Your task to perform on an android device: Play the last video I watched on Youtube Image 0: 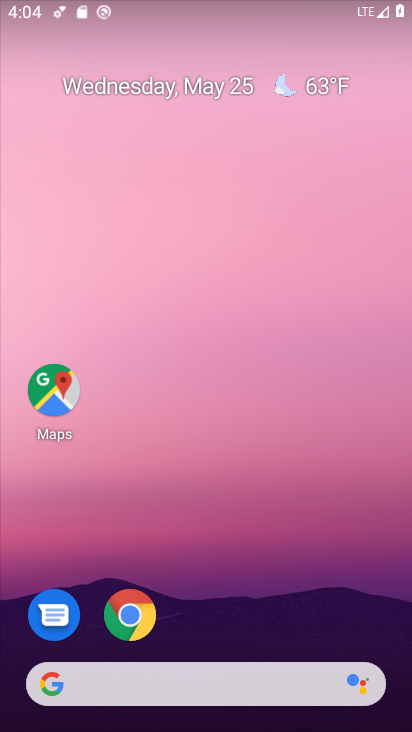
Step 0: drag from (311, 534) to (254, 57)
Your task to perform on an android device: Play the last video I watched on Youtube Image 1: 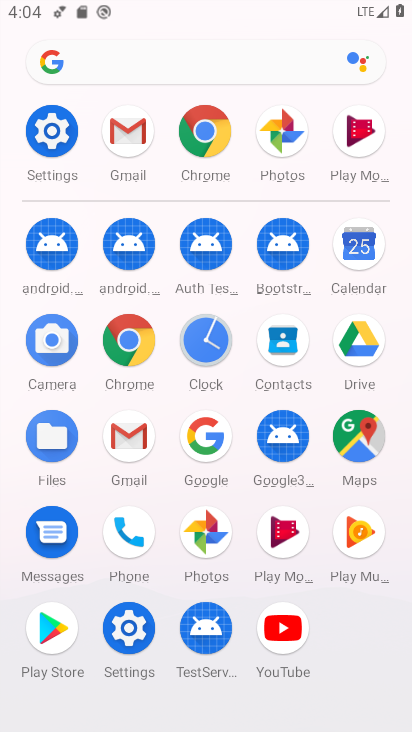
Step 1: click (287, 710)
Your task to perform on an android device: Play the last video I watched on Youtube Image 2: 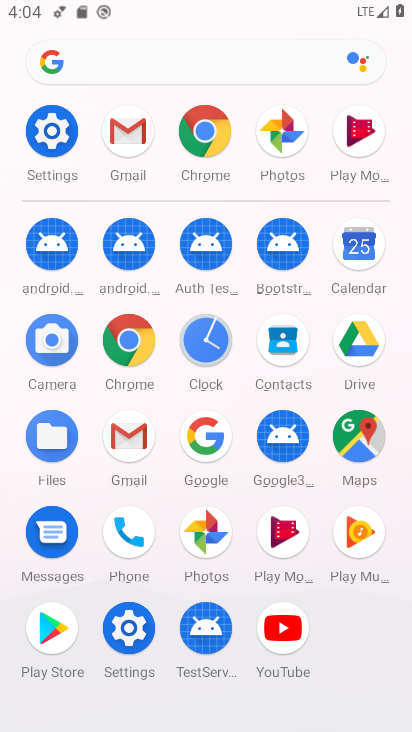
Step 2: click (281, 636)
Your task to perform on an android device: Play the last video I watched on Youtube Image 3: 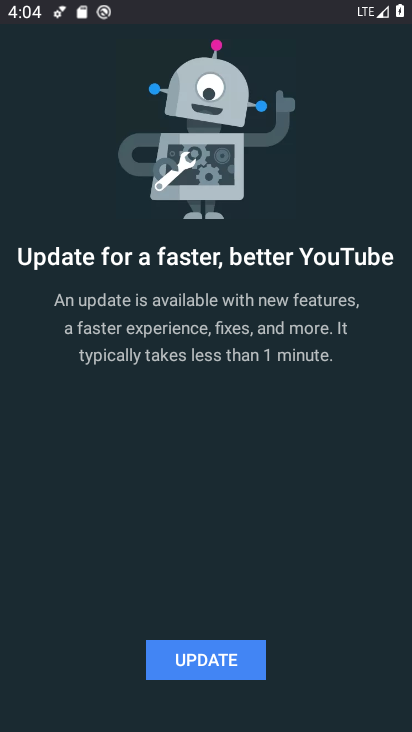
Step 3: click (239, 658)
Your task to perform on an android device: Play the last video I watched on Youtube Image 4: 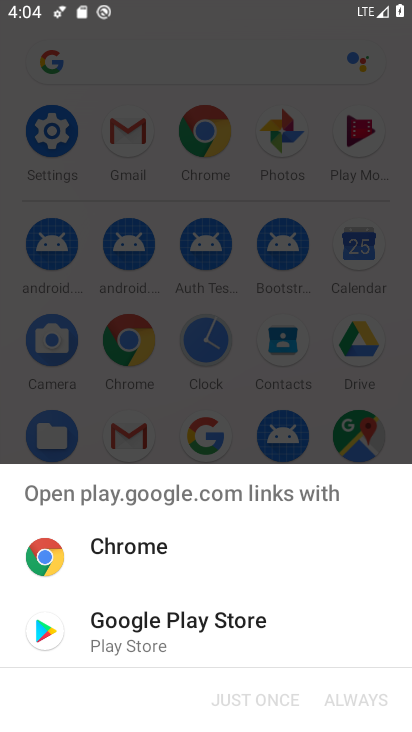
Step 4: click (204, 632)
Your task to perform on an android device: Play the last video I watched on Youtube Image 5: 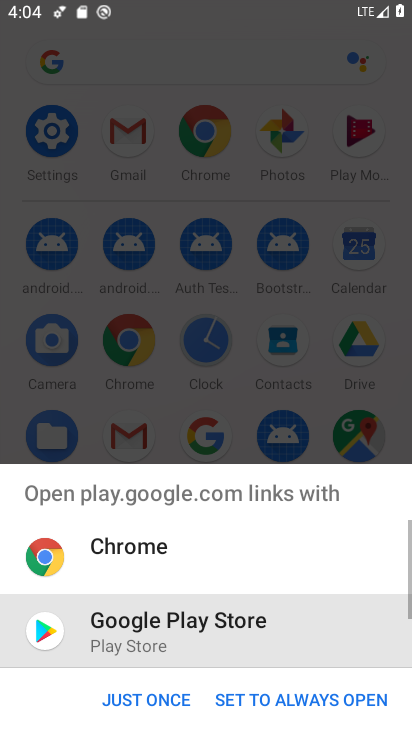
Step 5: click (156, 693)
Your task to perform on an android device: Play the last video I watched on Youtube Image 6: 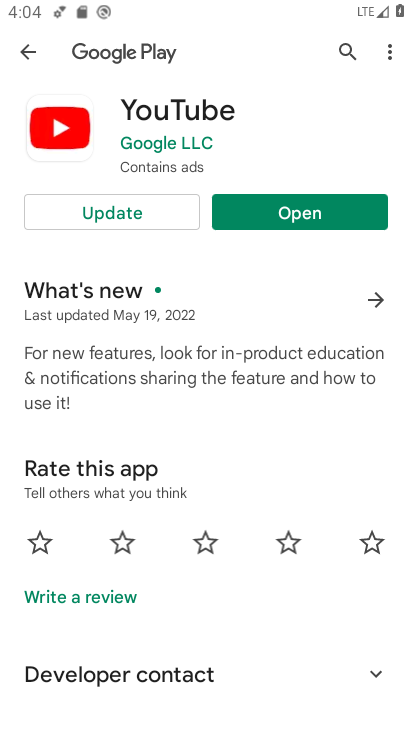
Step 6: click (120, 205)
Your task to perform on an android device: Play the last video I watched on Youtube Image 7: 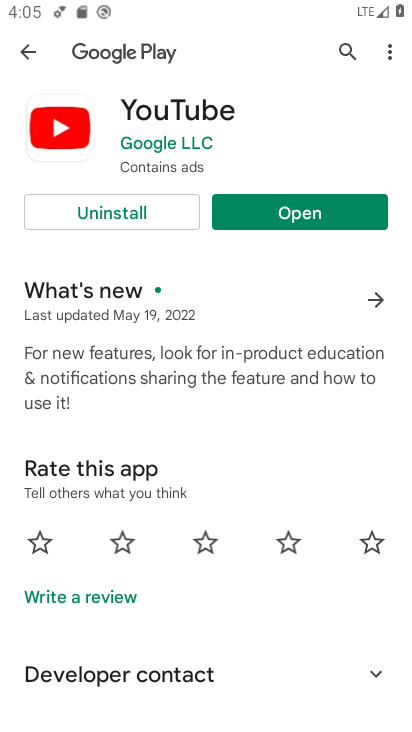
Step 7: click (307, 211)
Your task to perform on an android device: Play the last video I watched on Youtube Image 8: 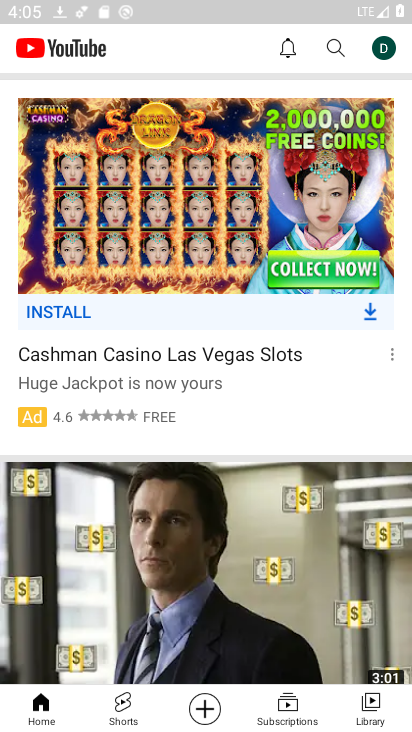
Step 8: click (367, 705)
Your task to perform on an android device: Play the last video I watched on Youtube Image 9: 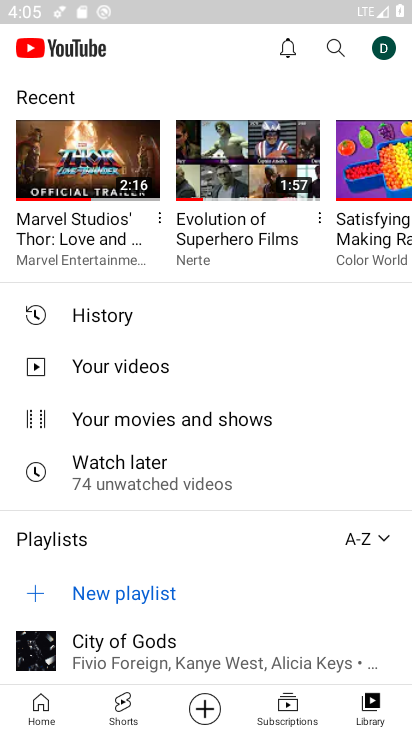
Step 9: click (115, 190)
Your task to perform on an android device: Play the last video I watched on Youtube Image 10: 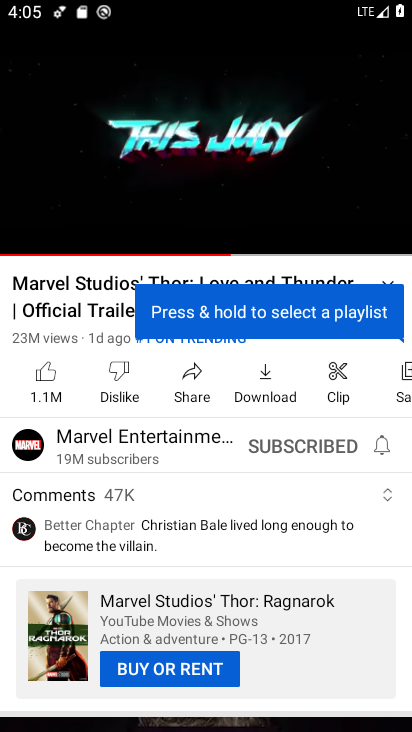
Step 10: click (223, 177)
Your task to perform on an android device: Play the last video I watched on Youtube Image 11: 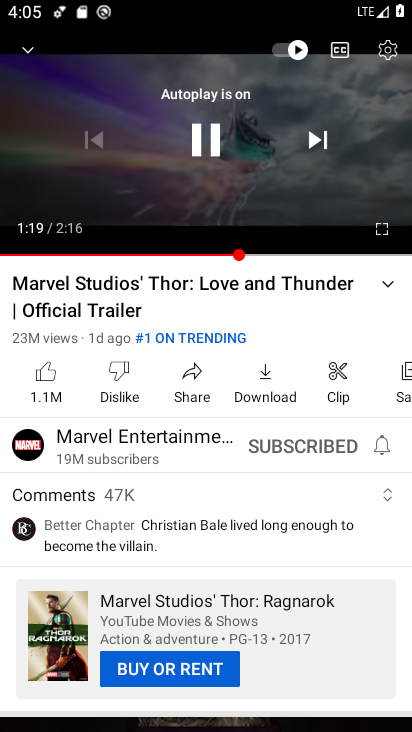
Step 11: click (202, 147)
Your task to perform on an android device: Play the last video I watched on Youtube Image 12: 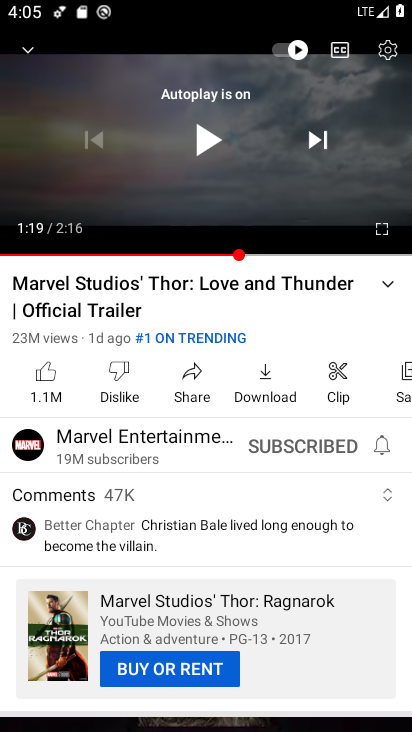
Step 12: task complete